Your task to perform on an android device: Open display settings Image 0: 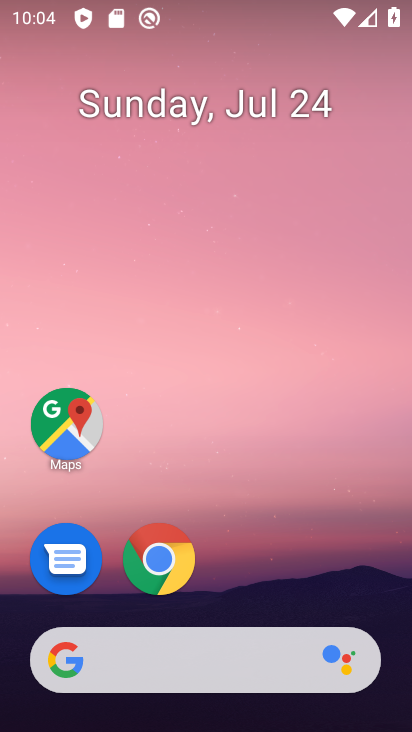
Step 0: drag from (258, 603) to (257, 8)
Your task to perform on an android device: Open display settings Image 1: 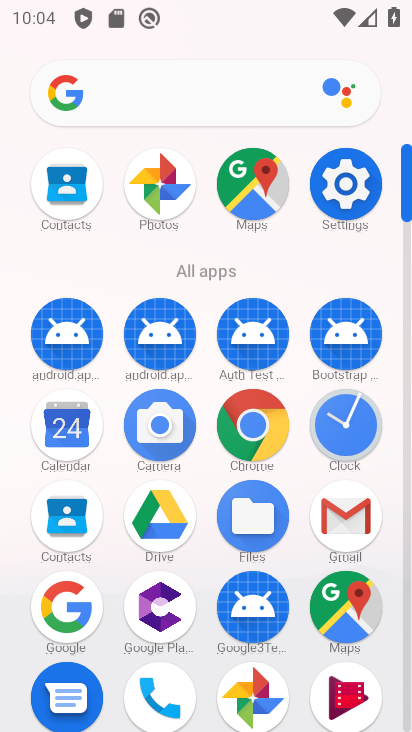
Step 1: click (350, 169)
Your task to perform on an android device: Open display settings Image 2: 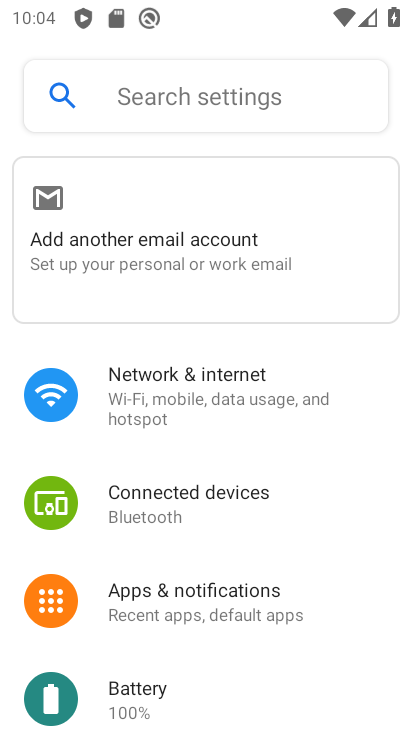
Step 2: drag from (167, 656) to (247, 137)
Your task to perform on an android device: Open display settings Image 3: 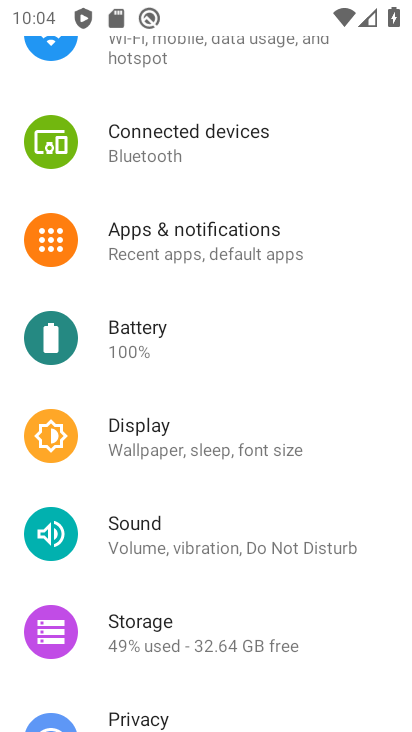
Step 3: click (178, 442)
Your task to perform on an android device: Open display settings Image 4: 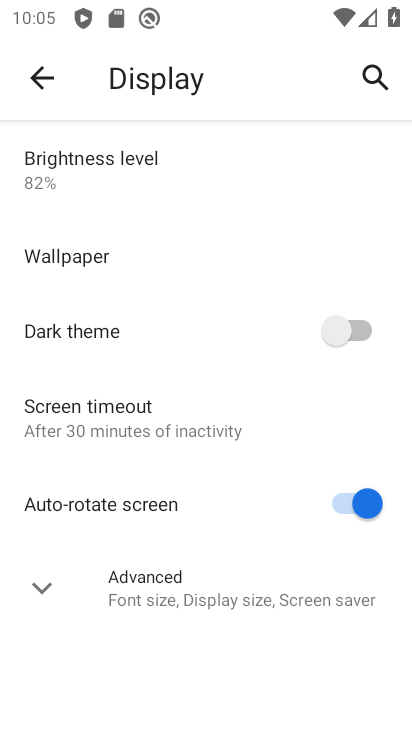
Step 4: task complete